Your task to perform on an android device: turn pop-ups off in chrome Image 0: 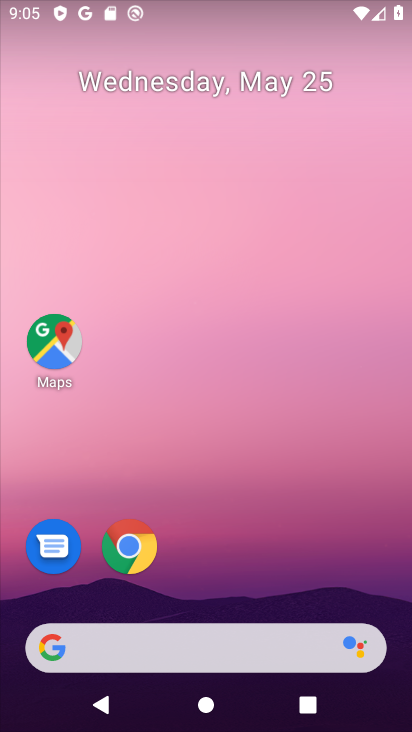
Step 0: click (143, 551)
Your task to perform on an android device: turn pop-ups off in chrome Image 1: 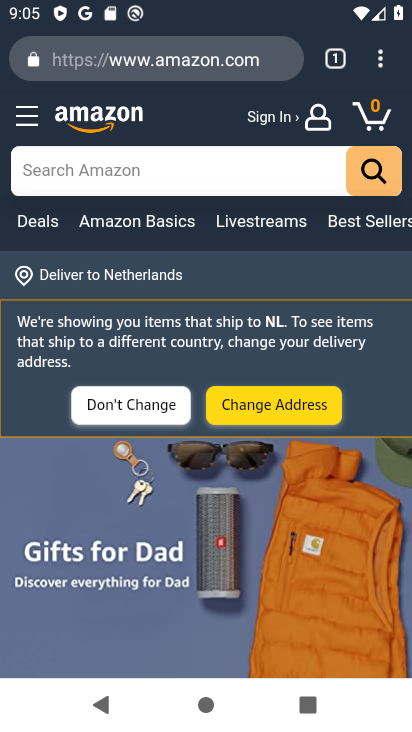
Step 1: drag from (380, 71) to (266, 577)
Your task to perform on an android device: turn pop-ups off in chrome Image 2: 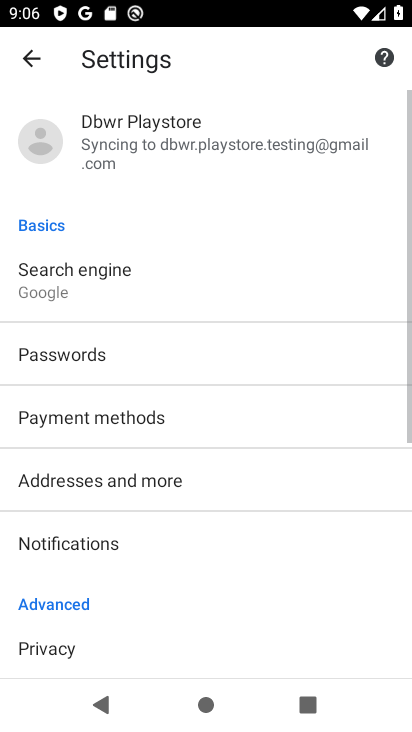
Step 2: drag from (126, 642) to (242, 307)
Your task to perform on an android device: turn pop-ups off in chrome Image 3: 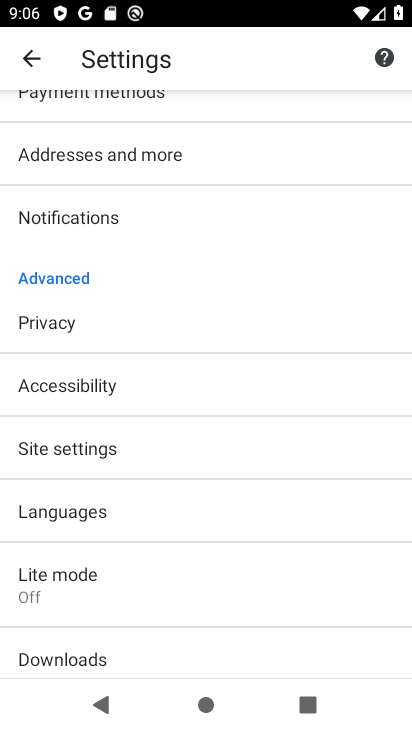
Step 3: click (132, 430)
Your task to perform on an android device: turn pop-ups off in chrome Image 4: 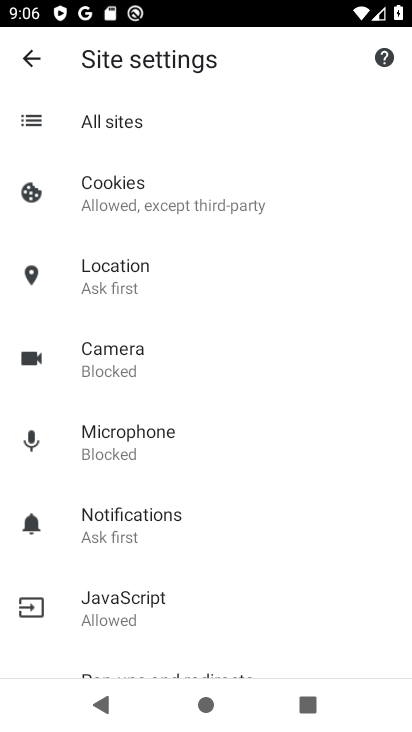
Step 4: drag from (208, 595) to (281, 325)
Your task to perform on an android device: turn pop-ups off in chrome Image 5: 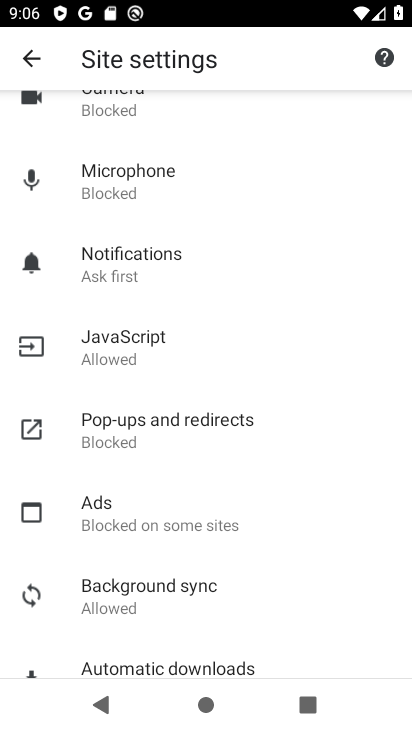
Step 5: click (219, 435)
Your task to perform on an android device: turn pop-ups off in chrome Image 6: 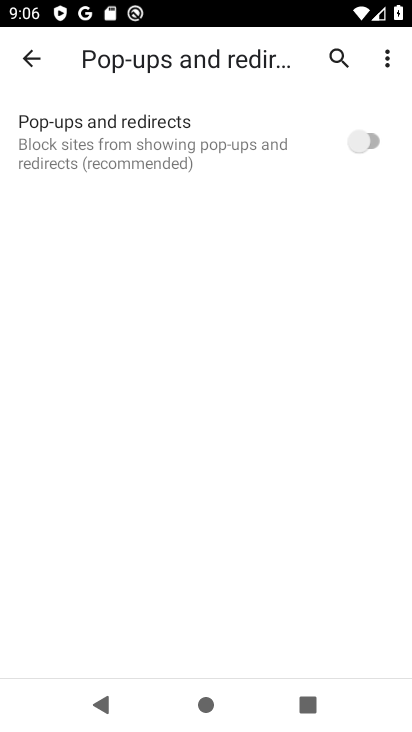
Step 6: task complete